Your task to perform on an android device: Open Google Maps Image 0: 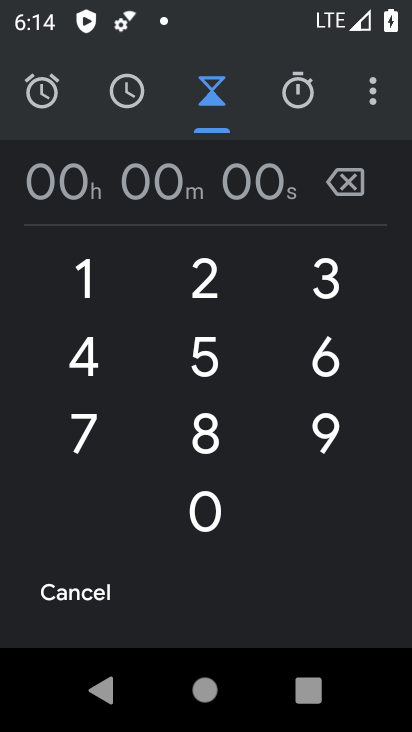
Step 0: press home button
Your task to perform on an android device: Open Google Maps Image 1: 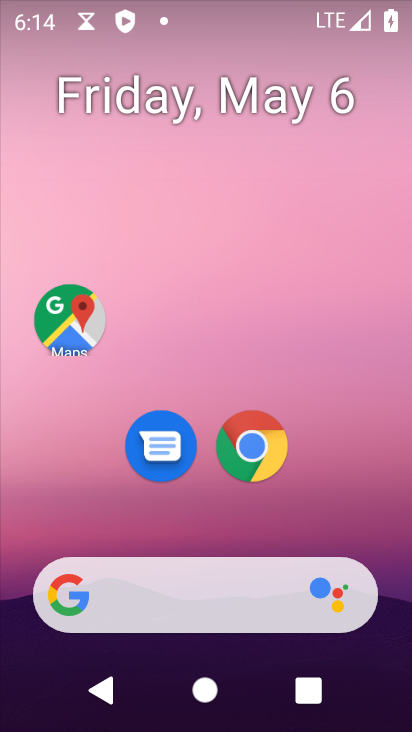
Step 1: click (95, 317)
Your task to perform on an android device: Open Google Maps Image 2: 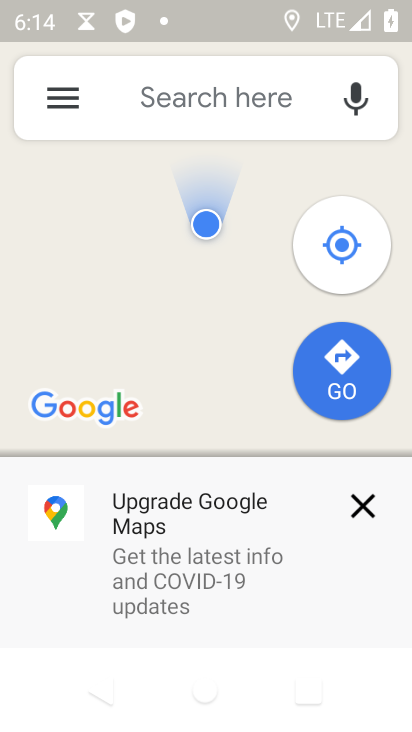
Step 2: task complete